Your task to perform on an android device: Go to Google maps Image 0: 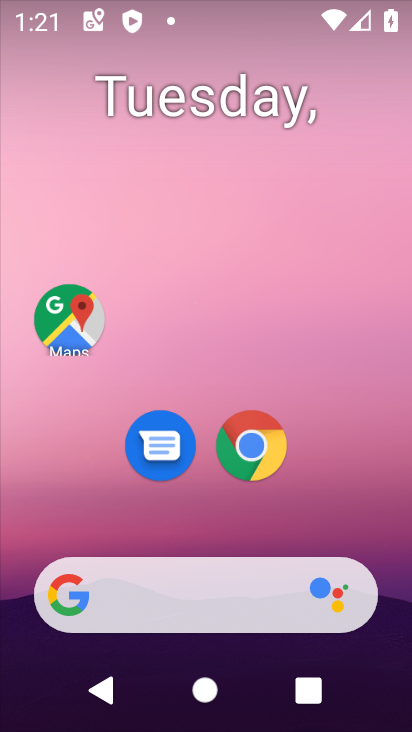
Step 0: drag from (348, 486) to (359, 12)
Your task to perform on an android device: Go to Google maps Image 1: 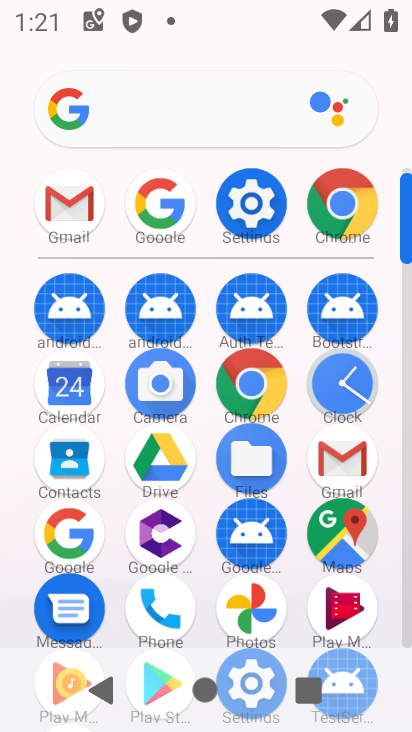
Step 1: click (348, 511)
Your task to perform on an android device: Go to Google maps Image 2: 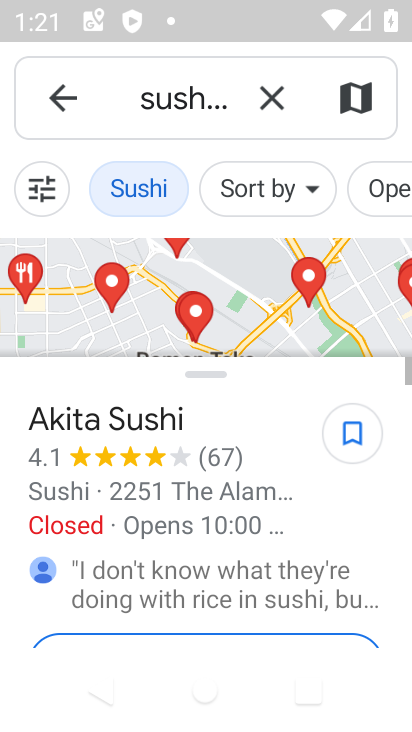
Step 2: task complete